Your task to perform on an android device: open a bookmark in the chrome app Image 0: 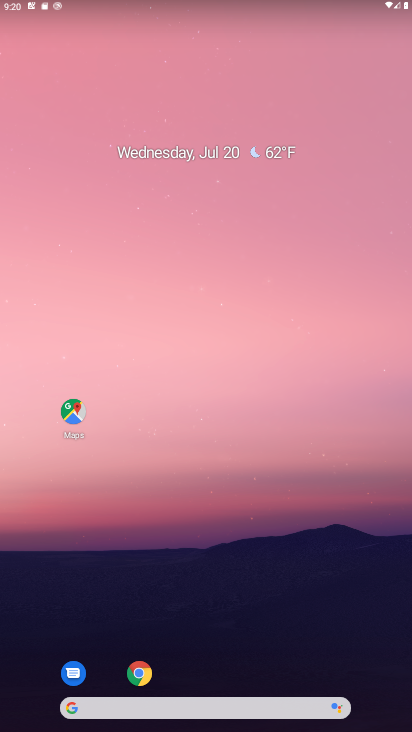
Step 0: click (137, 662)
Your task to perform on an android device: open a bookmark in the chrome app Image 1: 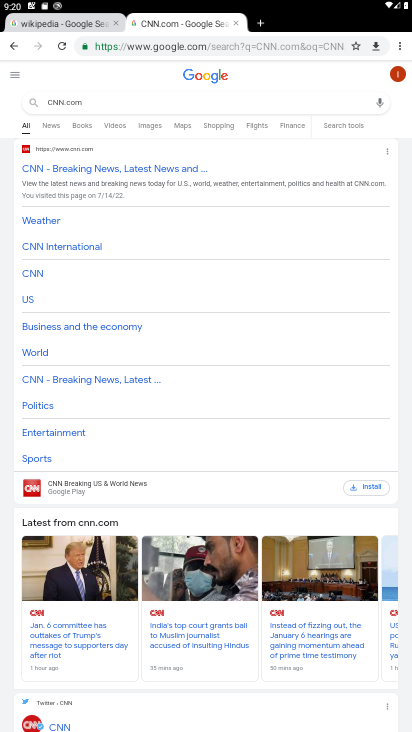
Step 1: click (402, 41)
Your task to perform on an android device: open a bookmark in the chrome app Image 2: 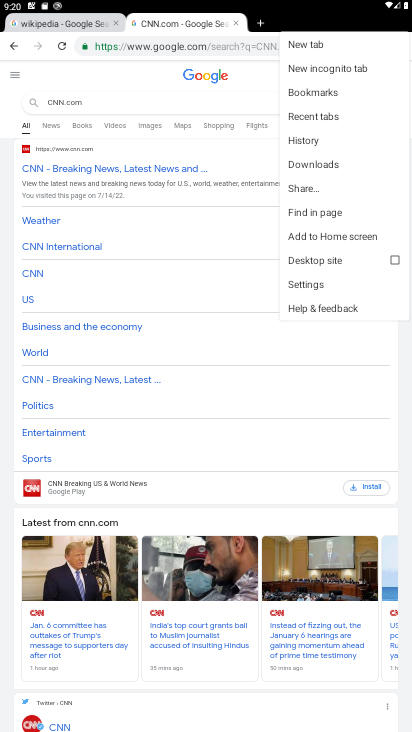
Step 2: click (308, 90)
Your task to perform on an android device: open a bookmark in the chrome app Image 3: 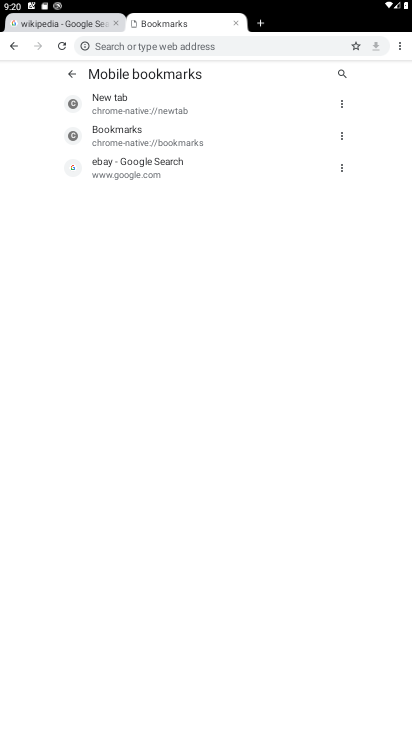
Step 3: click (118, 166)
Your task to perform on an android device: open a bookmark in the chrome app Image 4: 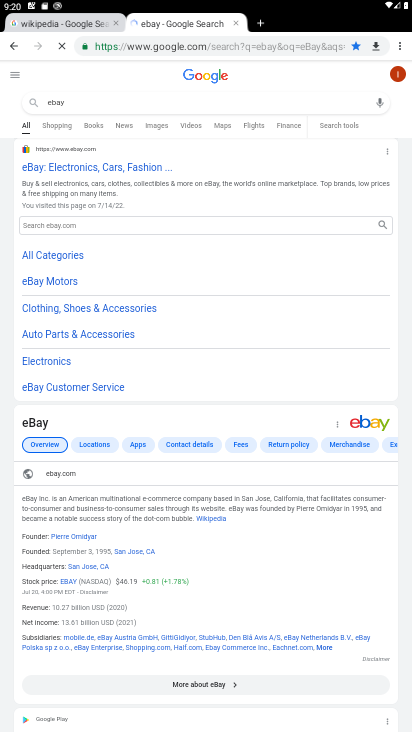
Step 4: task complete